Your task to perform on an android device: toggle javascript in the chrome app Image 0: 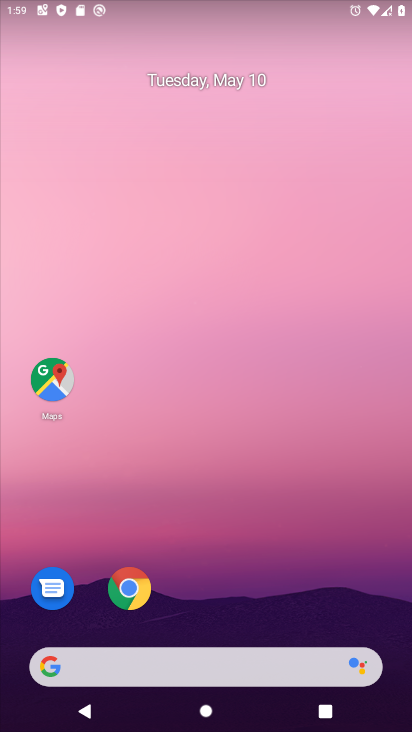
Step 0: click (309, 268)
Your task to perform on an android device: toggle javascript in the chrome app Image 1: 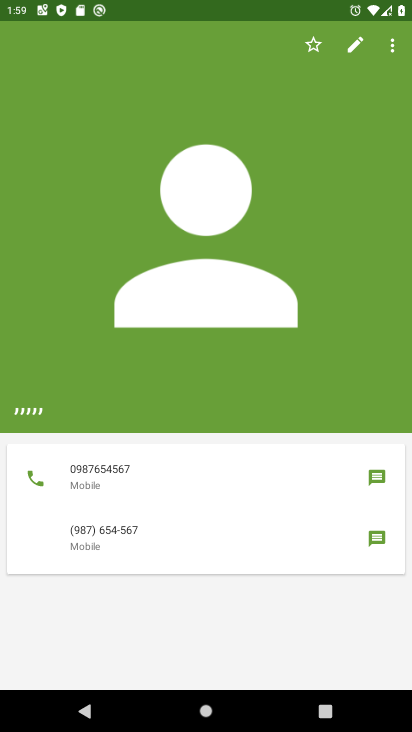
Step 1: drag from (194, 632) to (214, 365)
Your task to perform on an android device: toggle javascript in the chrome app Image 2: 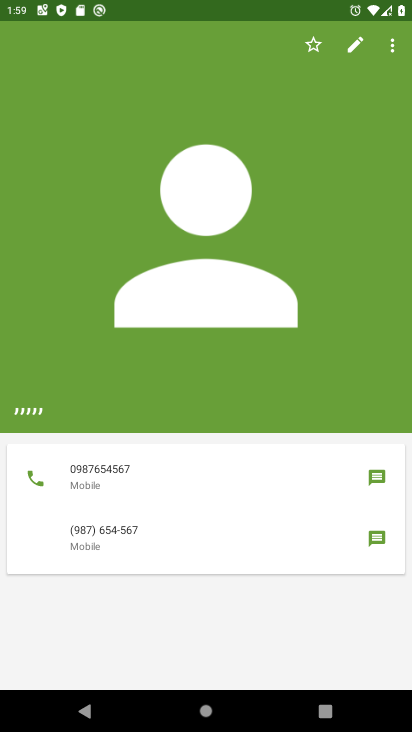
Step 2: press home button
Your task to perform on an android device: toggle javascript in the chrome app Image 3: 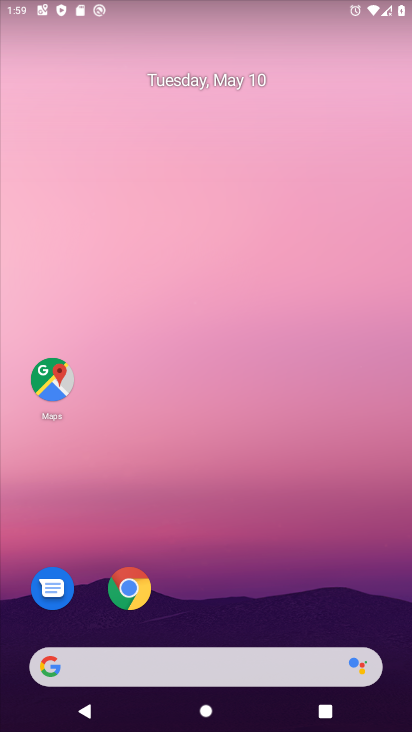
Step 3: drag from (292, 553) to (291, 281)
Your task to perform on an android device: toggle javascript in the chrome app Image 4: 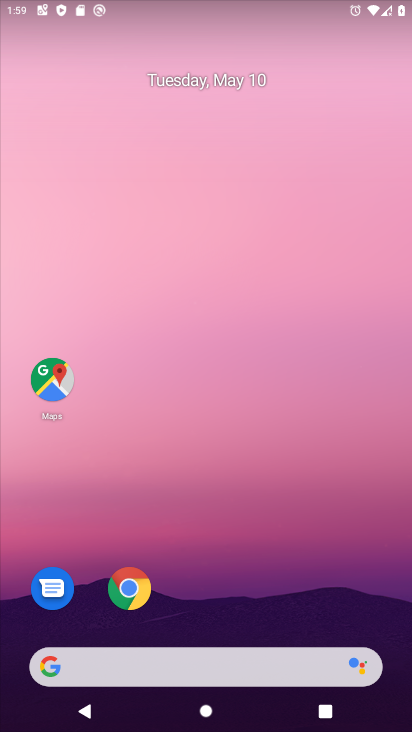
Step 4: drag from (204, 634) to (251, 284)
Your task to perform on an android device: toggle javascript in the chrome app Image 5: 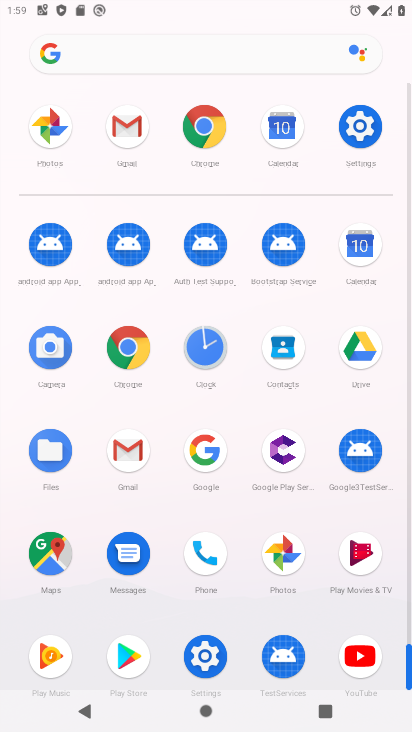
Step 5: click (125, 348)
Your task to perform on an android device: toggle javascript in the chrome app Image 6: 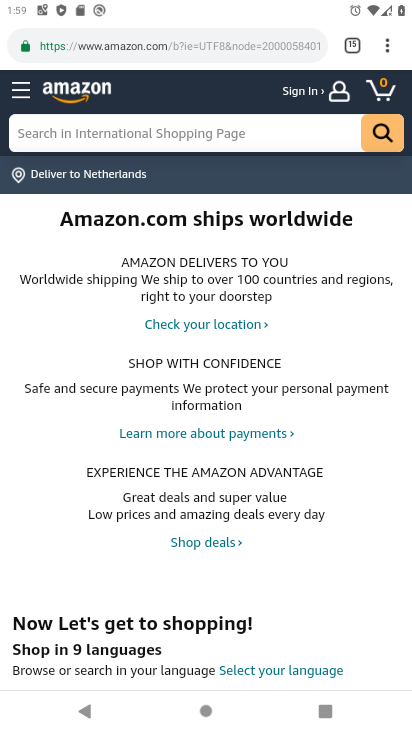
Step 6: click (384, 41)
Your task to perform on an android device: toggle javascript in the chrome app Image 7: 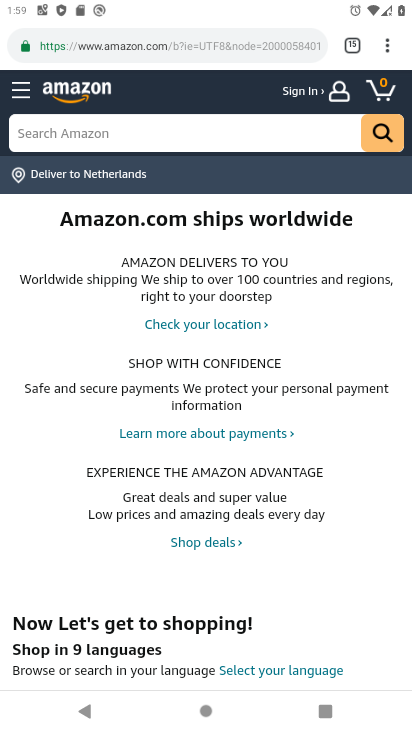
Step 7: click (378, 48)
Your task to perform on an android device: toggle javascript in the chrome app Image 8: 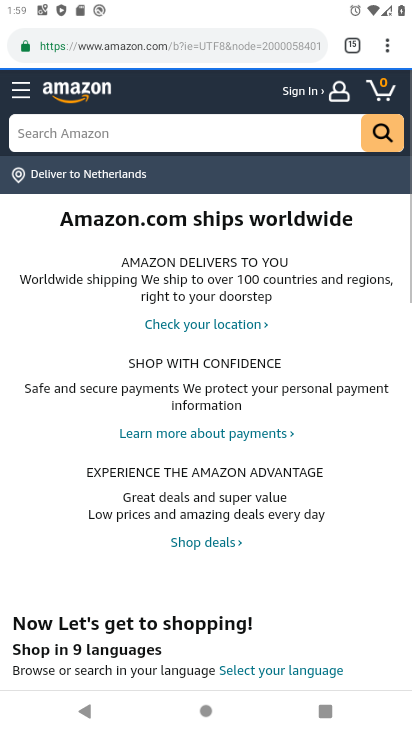
Step 8: click (377, 43)
Your task to perform on an android device: toggle javascript in the chrome app Image 9: 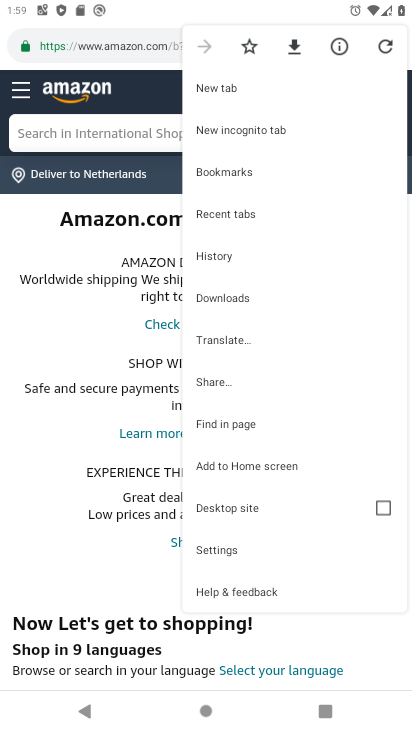
Step 9: click (227, 528)
Your task to perform on an android device: toggle javascript in the chrome app Image 10: 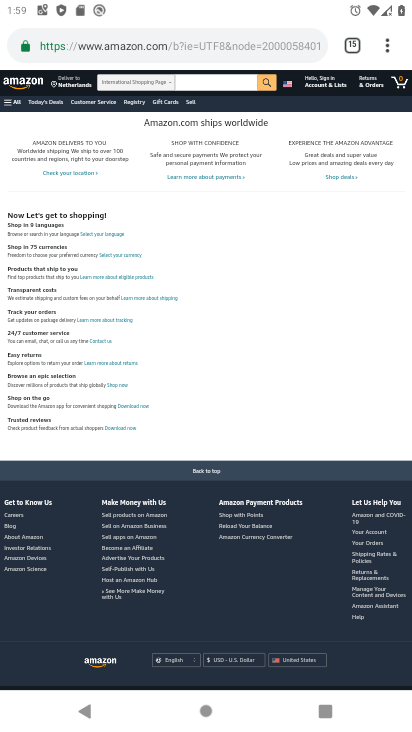
Step 10: press back button
Your task to perform on an android device: toggle javascript in the chrome app Image 11: 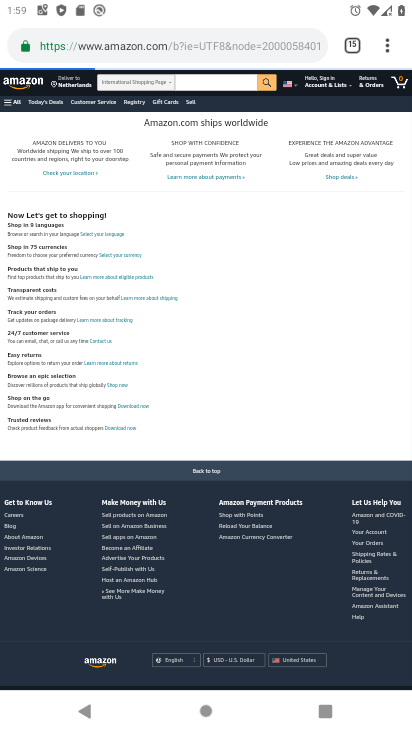
Step 11: click (382, 42)
Your task to perform on an android device: toggle javascript in the chrome app Image 12: 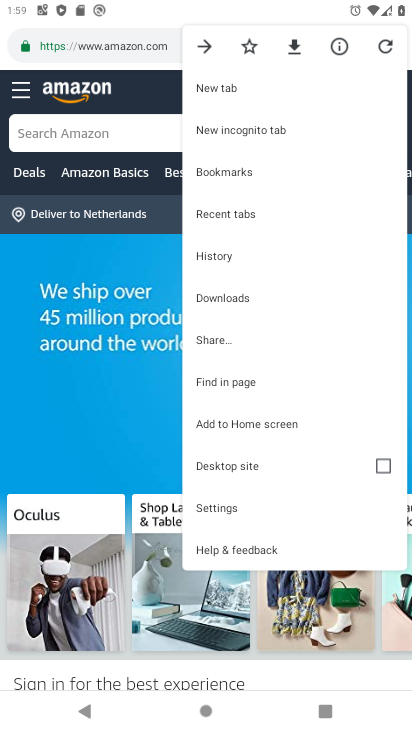
Step 12: click (239, 501)
Your task to perform on an android device: toggle javascript in the chrome app Image 13: 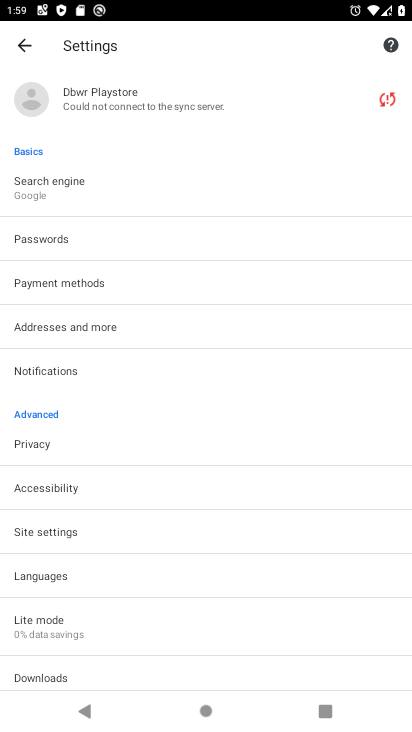
Step 13: click (99, 523)
Your task to perform on an android device: toggle javascript in the chrome app Image 14: 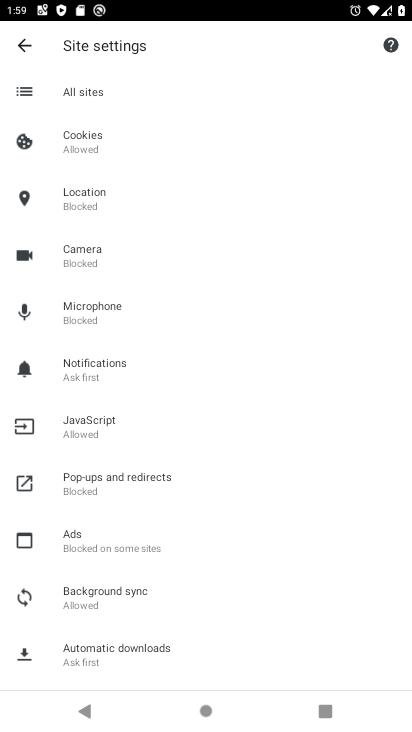
Step 14: click (94, 415)
Your task to perform on an android device: toggle javascript in the chrome app Image 15: 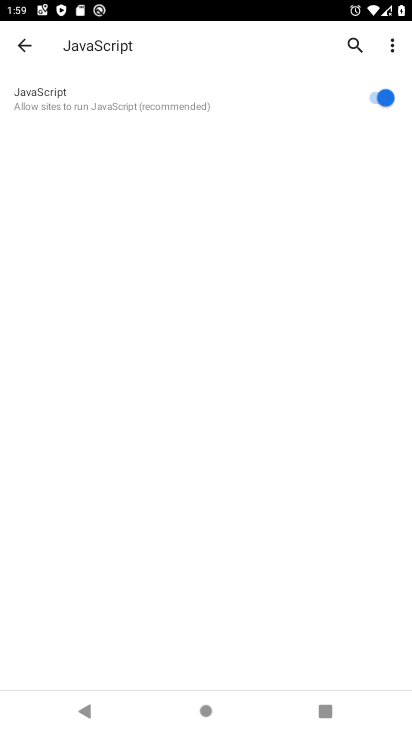
Step 15: click (383, 101)
Your task to perform on an android device: toggle javascript in the chrome app Image 16: 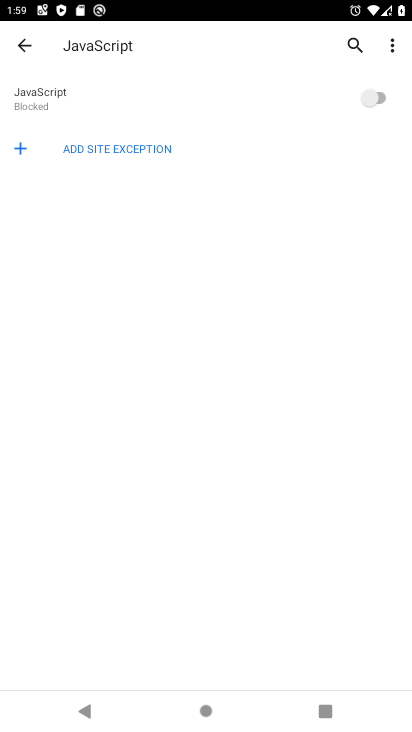
Step 16: task complete